Your task to perform on an android device: Turn on the flashlight Image 0: 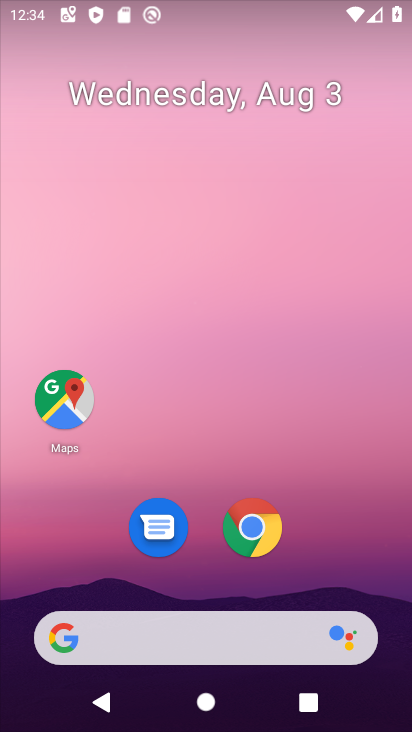
Step 0: drag from (200, 577) to (220, 194)
Your task to perform on an android device: Turn on the flashlight Image 1: 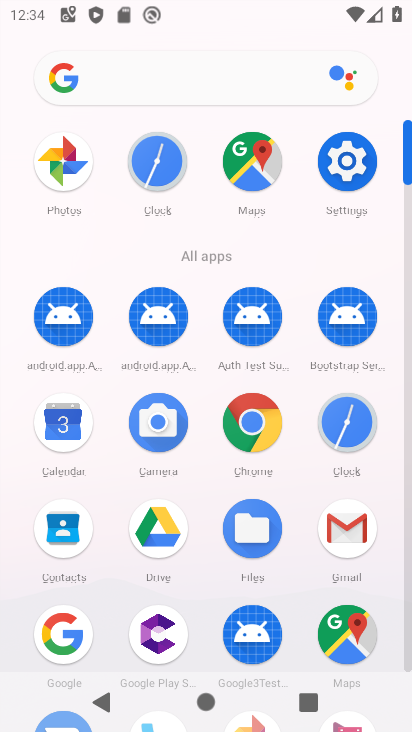
Step 1: click (353, 174)
Your task to perform on an android device: Turn on the flashlight Image 2: 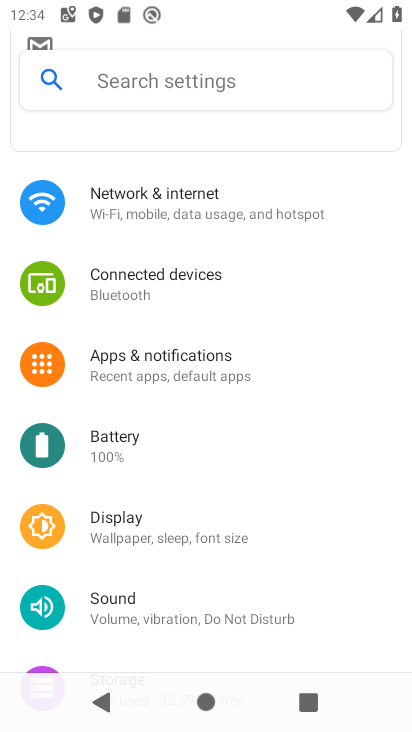
Step 2: click (165, 79)
Your task to perform on an android device: Turn on the flashlight Image 3: 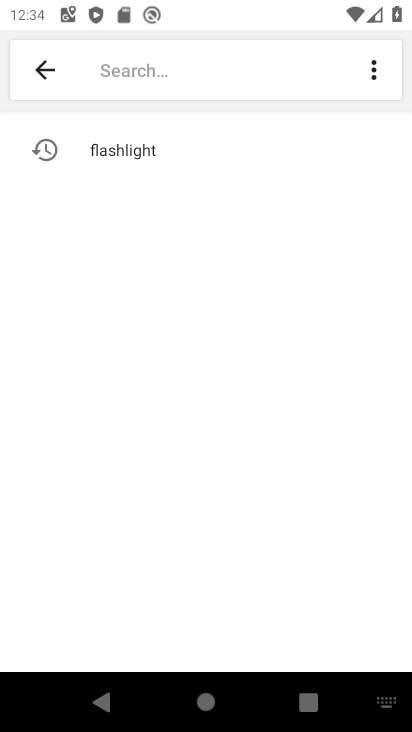
Step 3: type "flashlight"
Your task to perform on an android device: Turn on the flashlight Image 4: 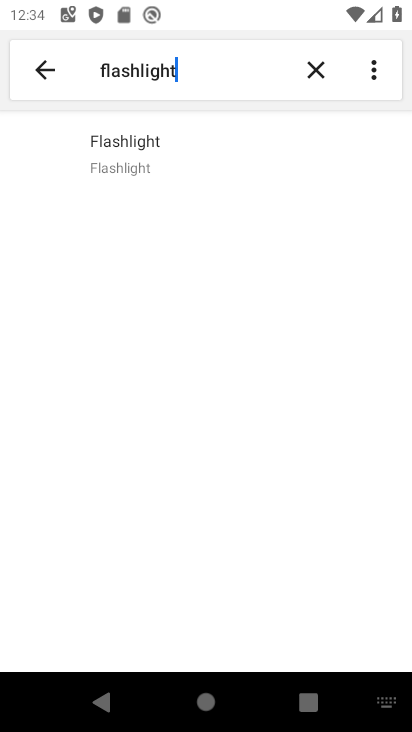
Step 4: click (106, 150)
Your task to perform on an android device: Turn on the flashlight Image 5: 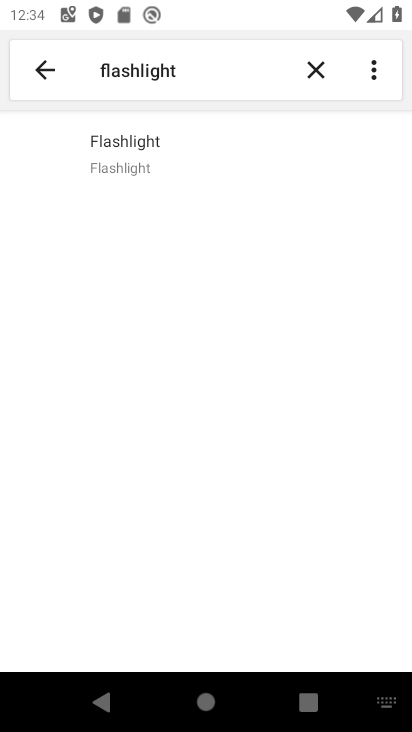
Step 5: click (140, 151)
Your task to perform on an android device: Turn on the flashlight Image 6: 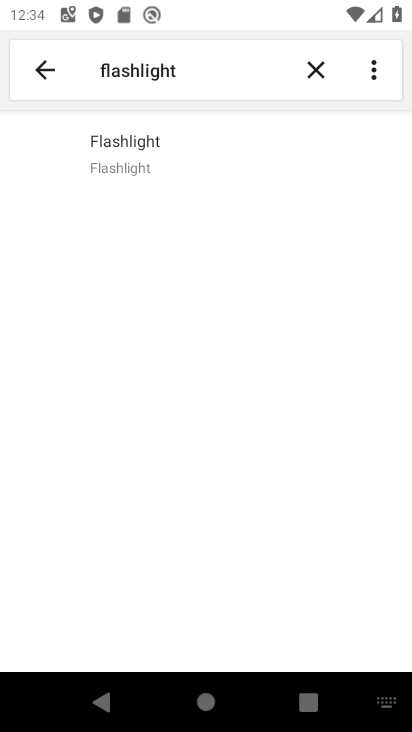
Step 6: task complete